Your task to perform on an android device: Open Google Chrome Image 0: 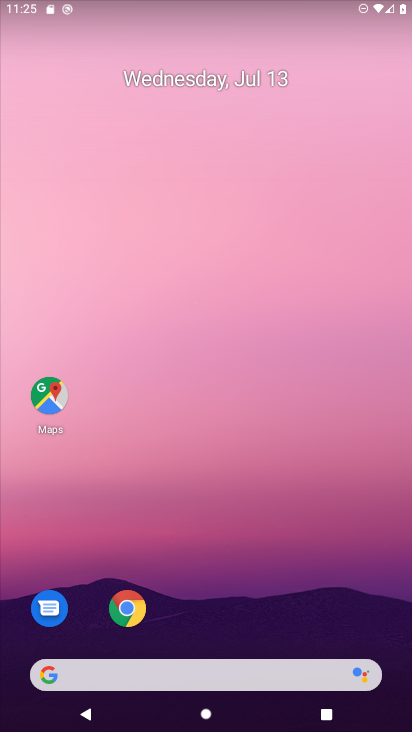
Step 0: click (120, 600)
Your task to perform on an android device: Open Google Chrome Image 1: 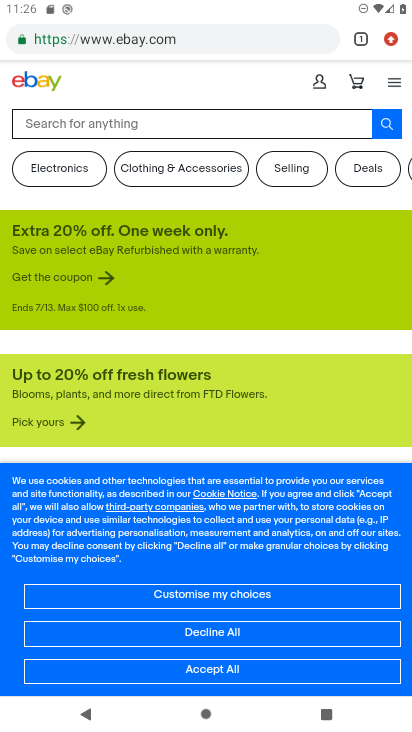
Step 1: task complete